Your task to perform on an android device: What is the news today? Image 0: 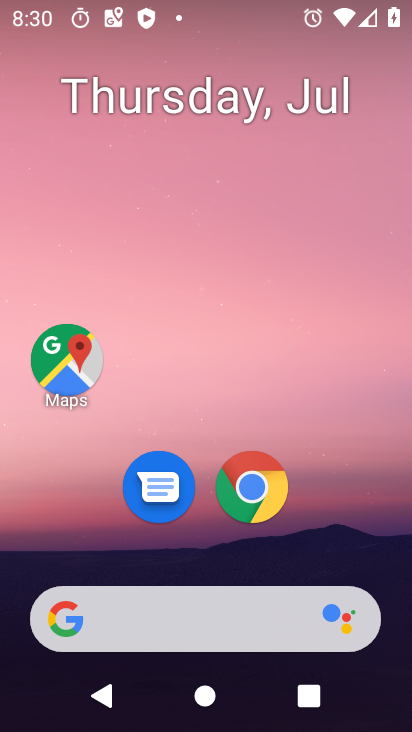
Step 0: drag from (210, 597) to (228, 105)
Your task to perform on an android device: What is the news today? Image 1: 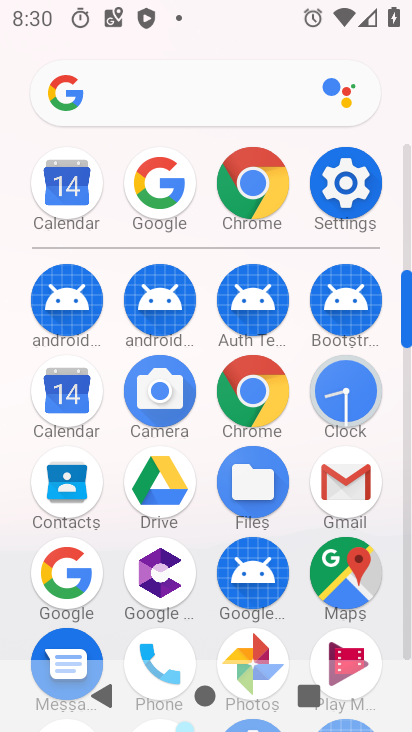
Step 1: click (84, 577)
Your task to perform on an android device: What is the news today? Image 2: 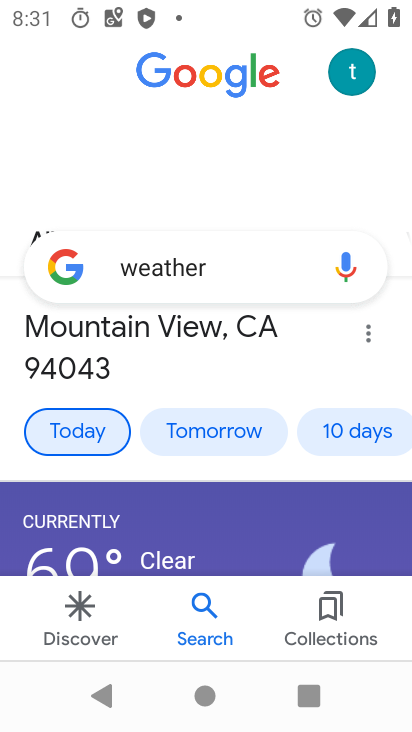
Step 2: click (220, 262)
Your task to perform on an android device: What is the news today? Image 3: 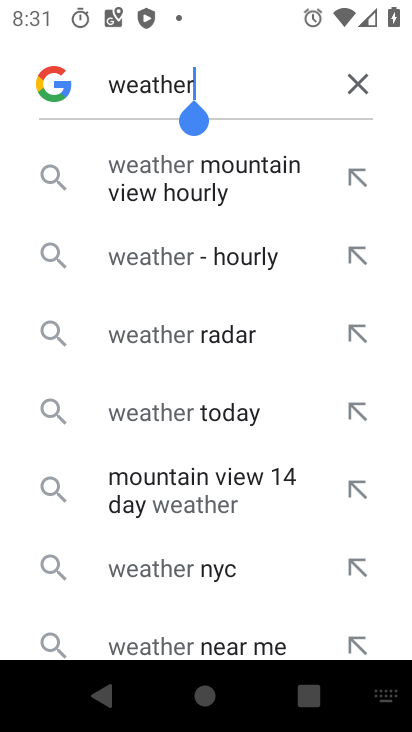
Step 3: click (356, 77)
Your task to perform on an android device: What is the news today? Image 4: 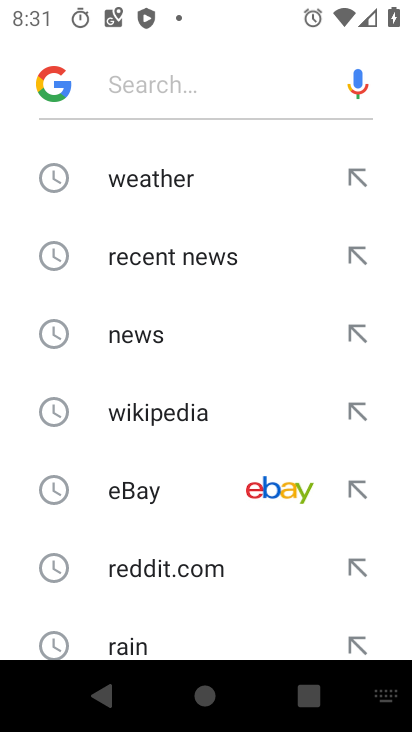
Step 4: click (185, 344)
Your task to perform on an android device: What is the news today? Image 5: 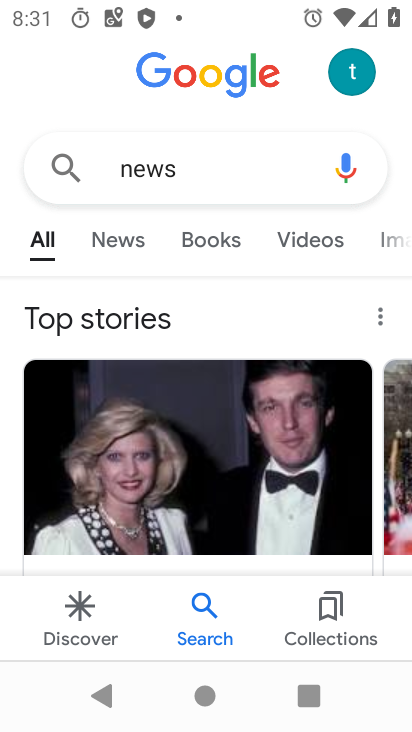
Step 5: click (129, 240)
Your task to perform on an android device: What is the news today? Image 6: 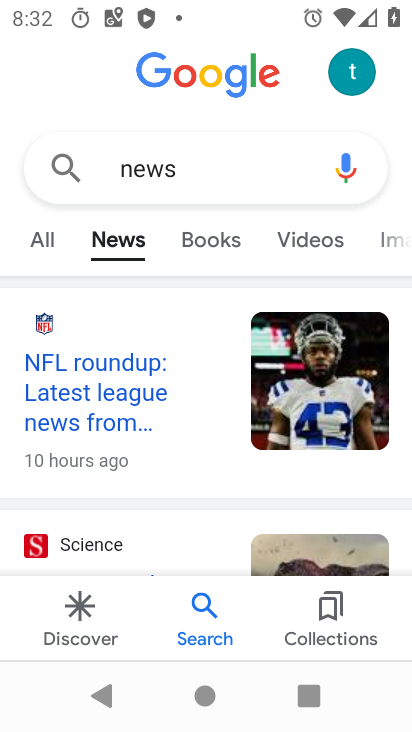
Step 6: task complete